Your task to perform on an android device: make emails show in primary in the gmail app Image 0: 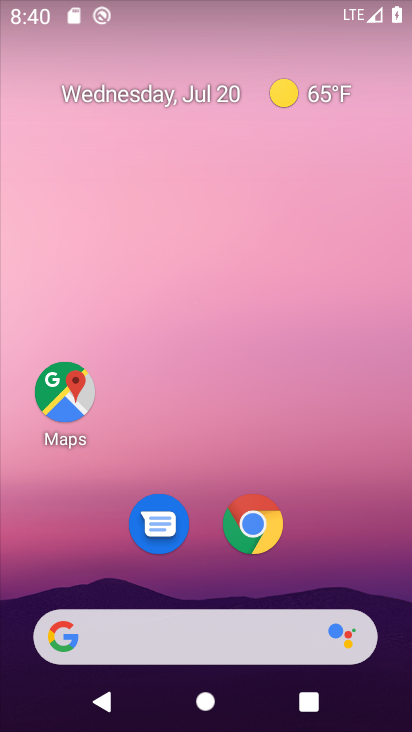
Step 0: drag from (305, 558) to (334, 69)
Your task to perform on an android device: make emails show in primary in the gmail app Image 1: 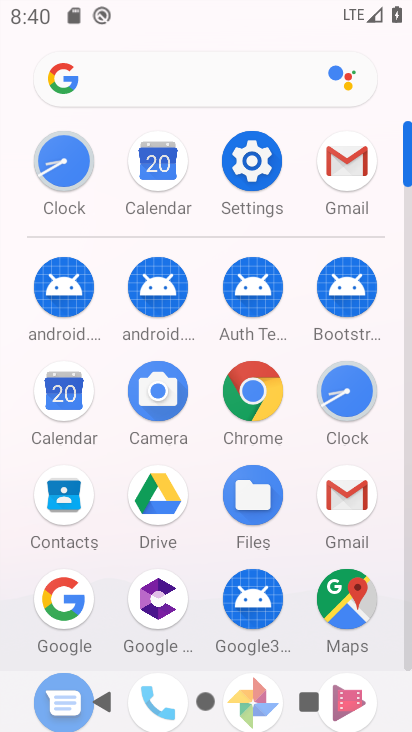
Step 1: click (344, 165)
Your task to perform on an android device: make emails show in primary in the gmail app Image 2: 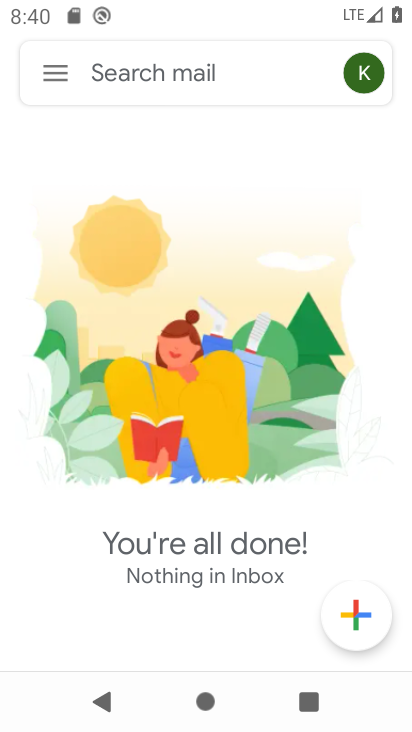
Step 2: click (60, 73)
Your task to perform on an android device: make emails show in primary in the gmail app Image 3: 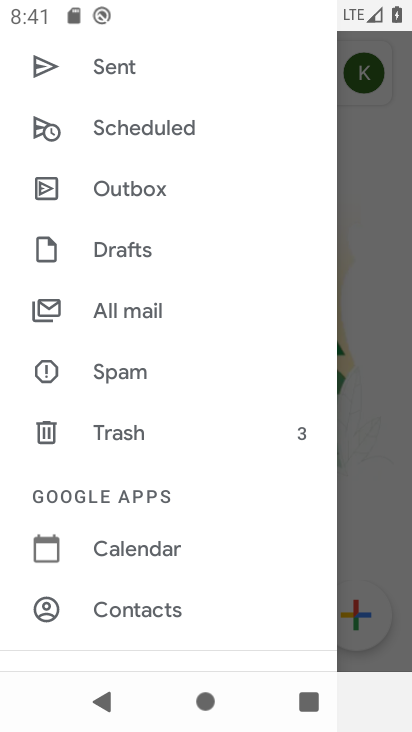
Step 3: drag from (186, 508) to (204, 251)
Your task to perform on an android device: make emails show in primary in the gmail app Image 4: 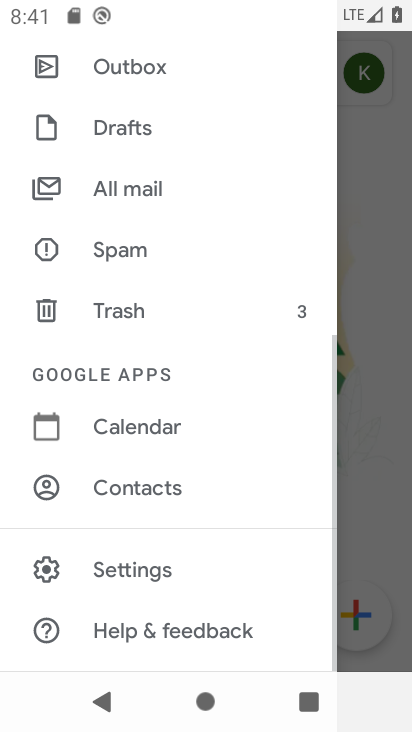
Step 4: click (149, 562)
Your task to perform on an android device: make emails show in primary in the gmail app Image 5: 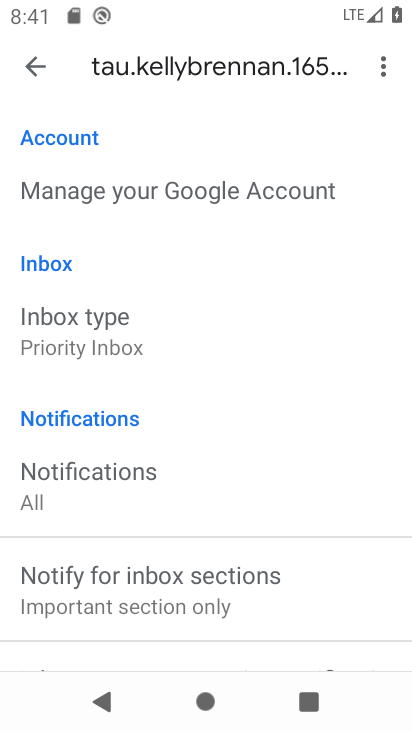
Step 5: click (100, 315)
Your task to perform on an android device: make emails show in primary in the gmail app Image 6: 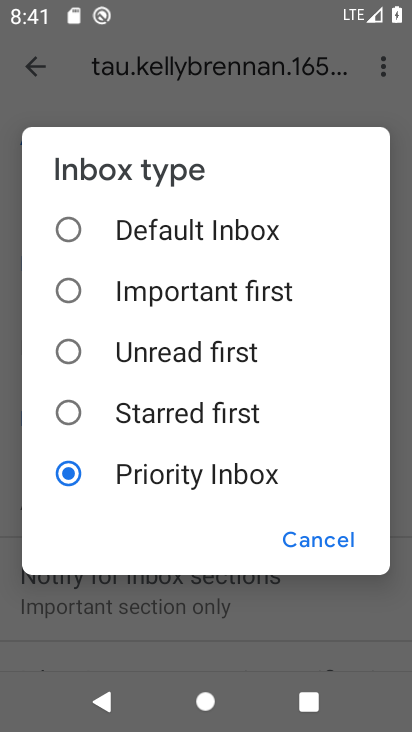
Step 6: click (74, 219)
Your task to perform on an android device: make emails show in primary in the gmail app Image 7: 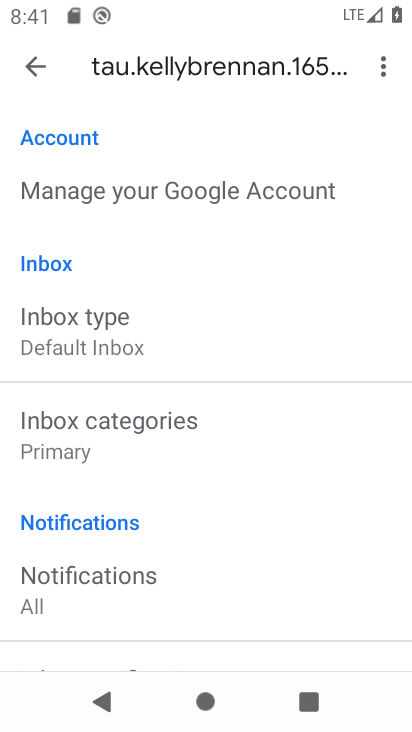
Step 7: task complete